Your task to perform on an android device: Search for a new foundation (skincare) product Image 0: 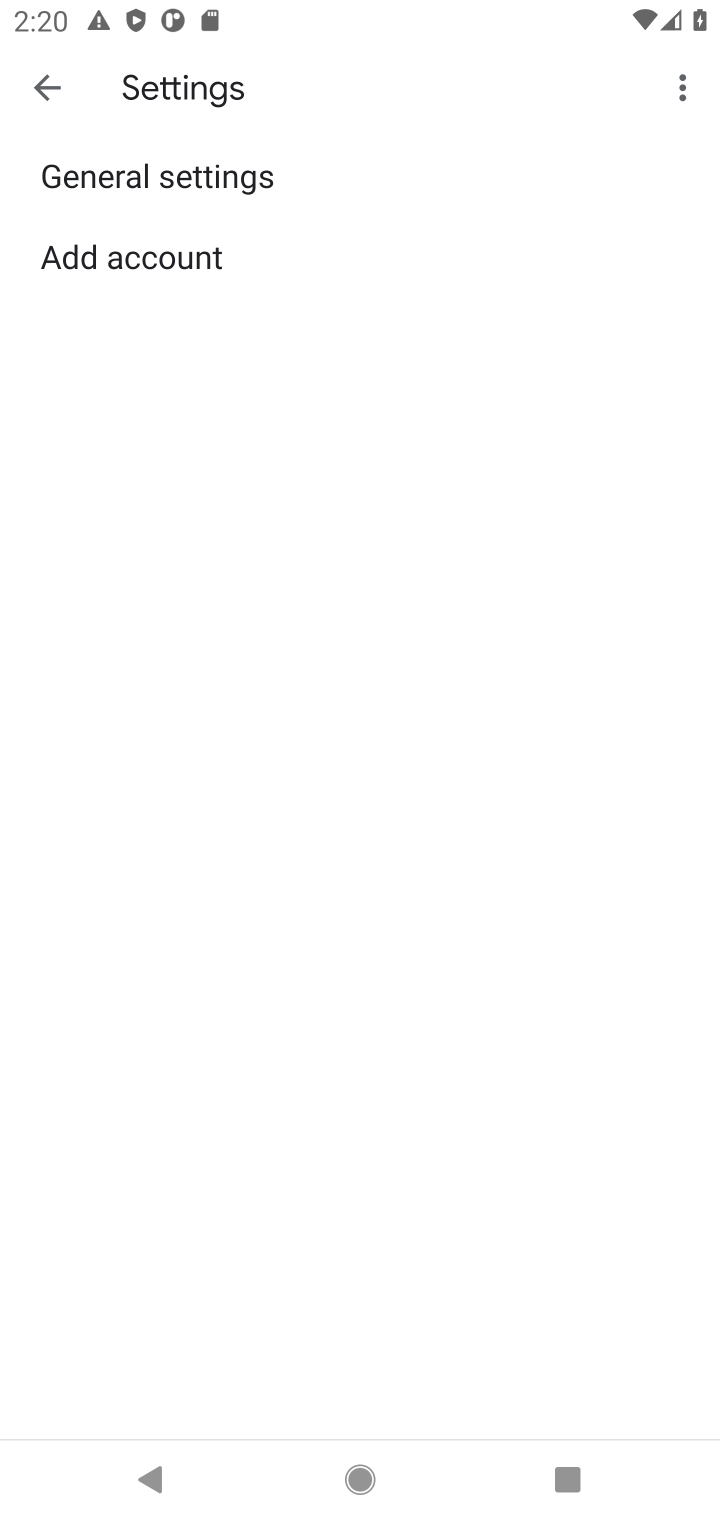
Step 0: press back button
Your task to perform on an android device: Search for a new foundation (skincare) product Image 1: 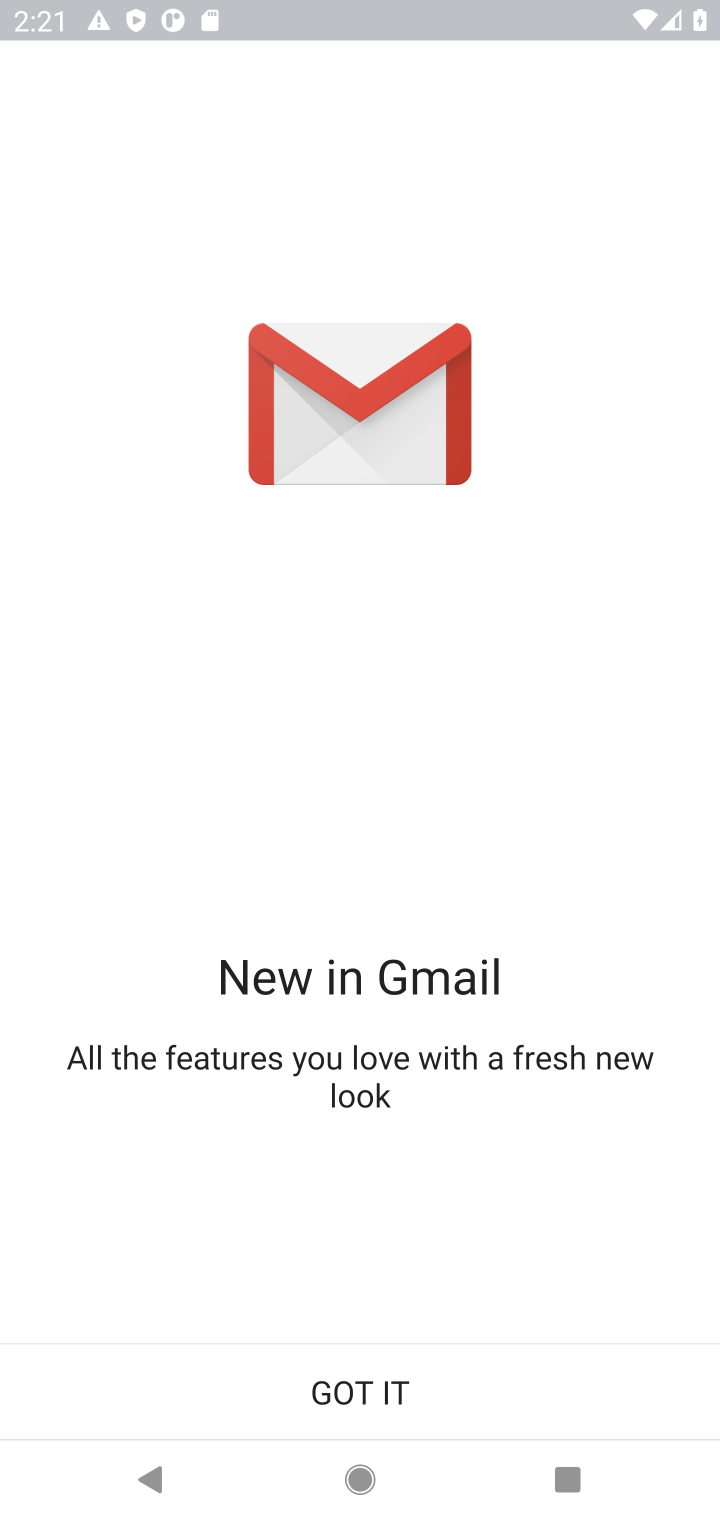
Step 1: click (398, 1394)
Your task to perform on an android device: Search for a new foundation (skincare) product Image 2: 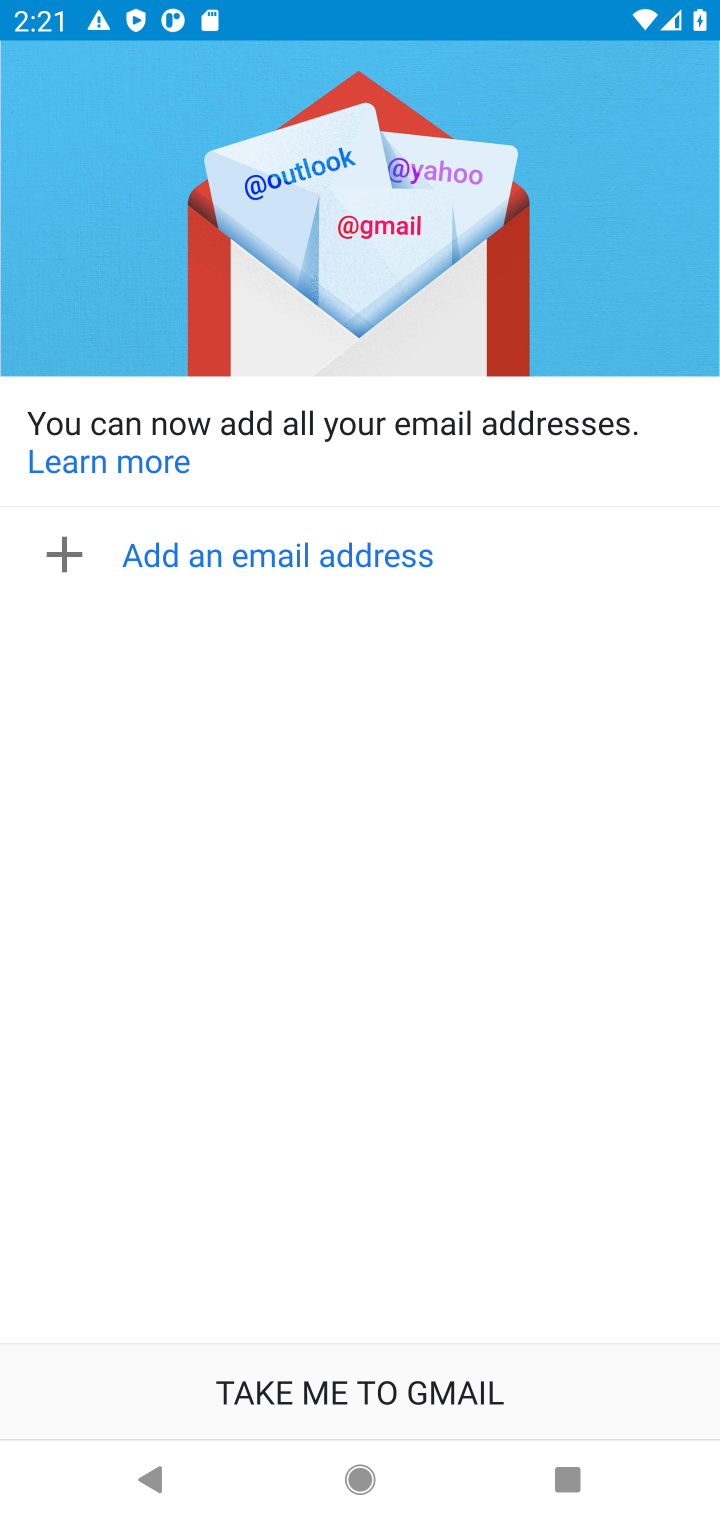
Step 2: click (398, 1394)
Your task to perform on an android device: Search for a new foundation (skincare) product Image 3: 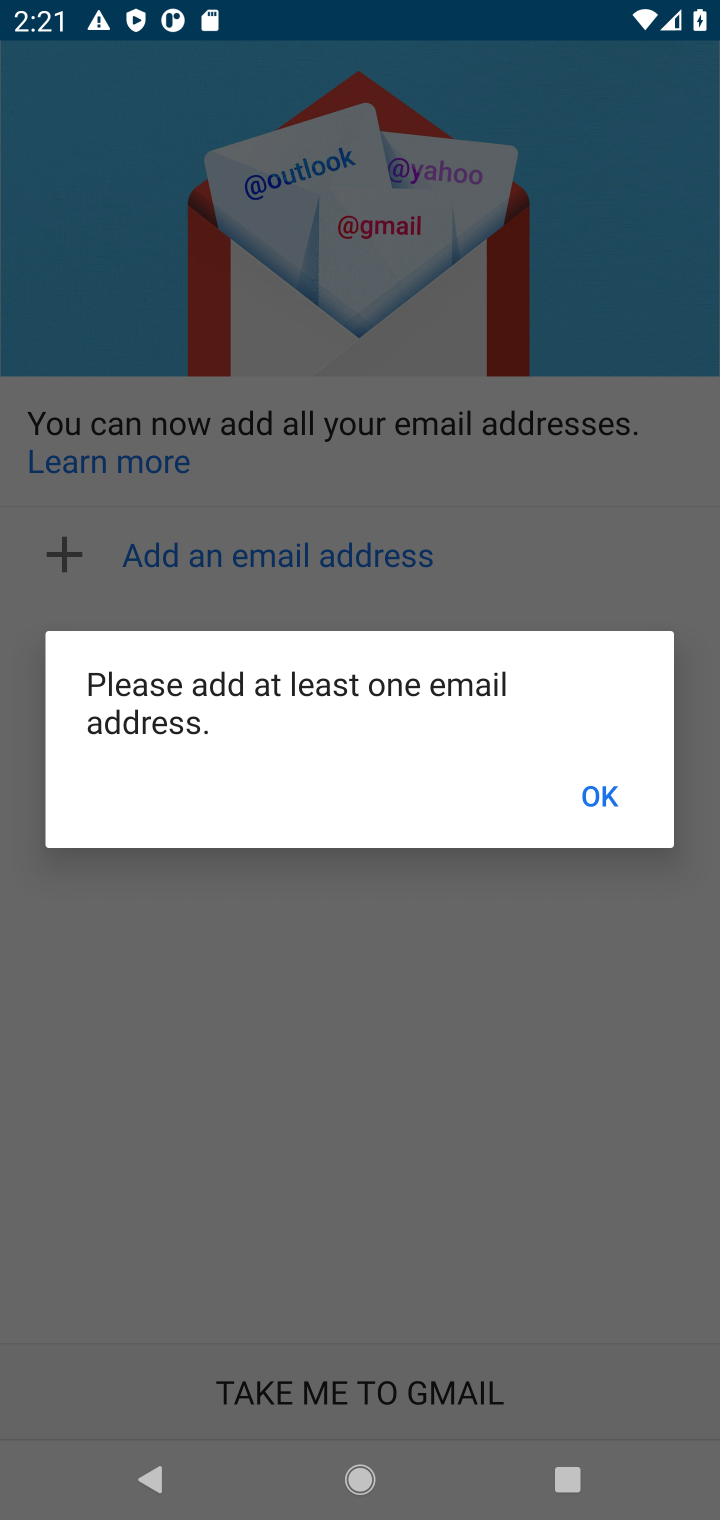
Step 3: click (602, 793)
Your task to perform on an android device: Search for a new foundation (skincare) product Image 4: 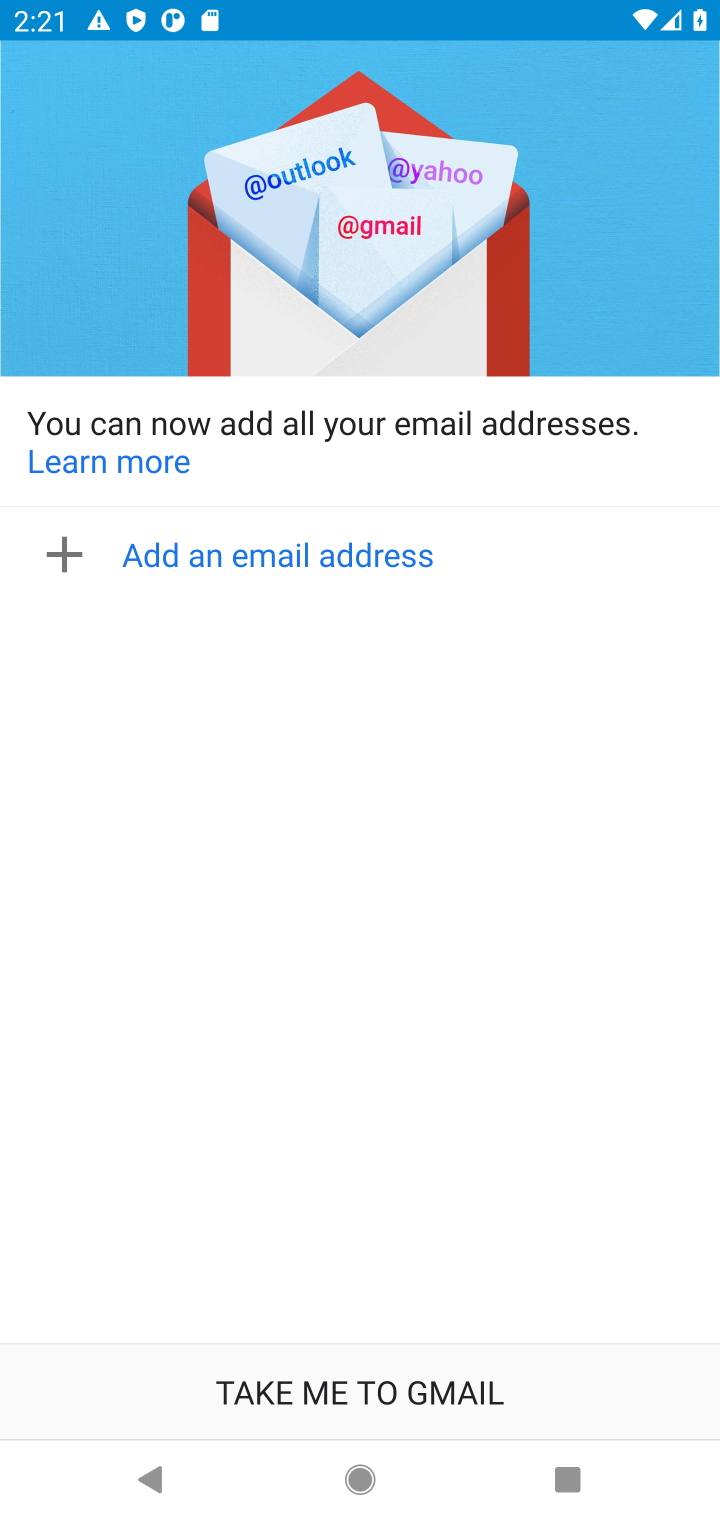
Step 4: click (401, 1389)
Your task to perform on an android device: Search for a new foundation (skincare) product Image 5: 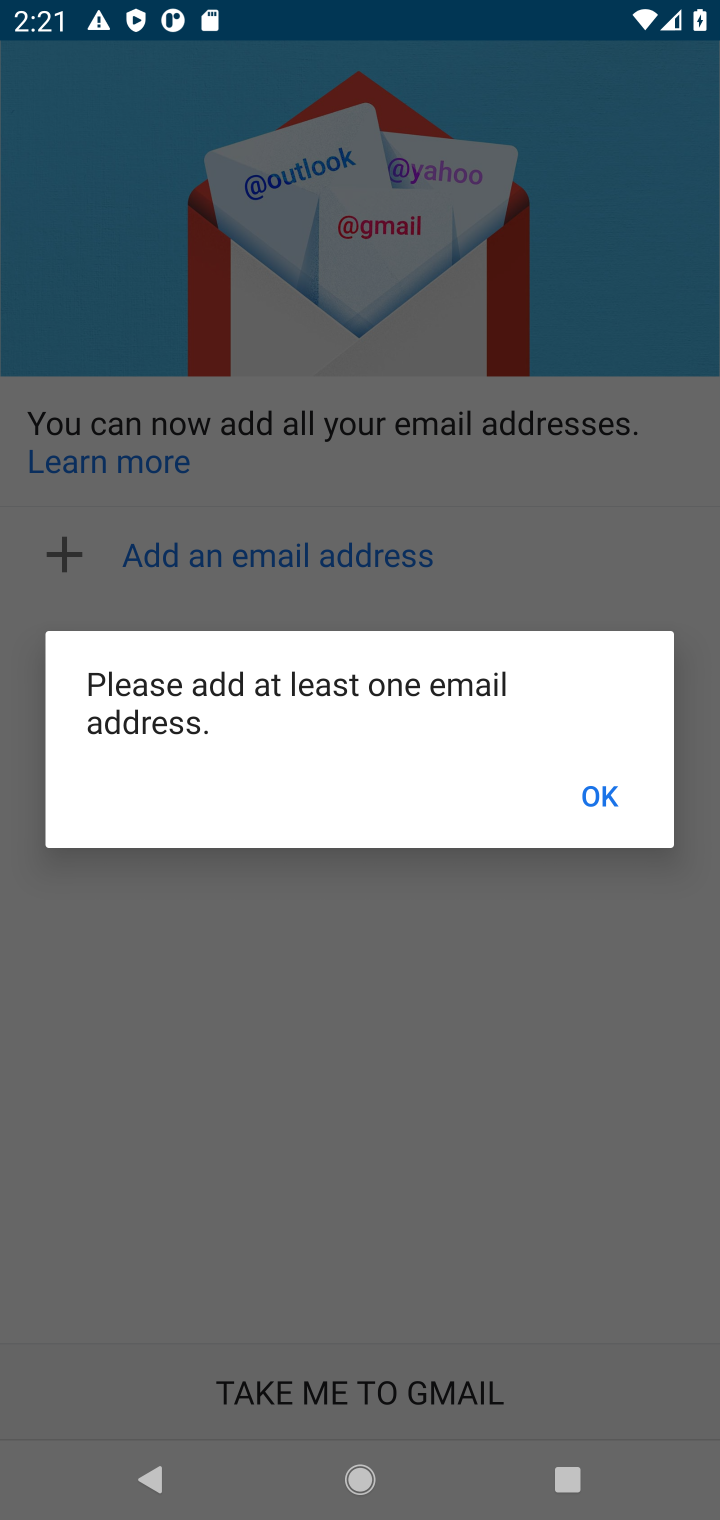
Step 5: click (602, 793)
Your task to perform on an android device: Search for a new foundation (skincare) product Image 6: 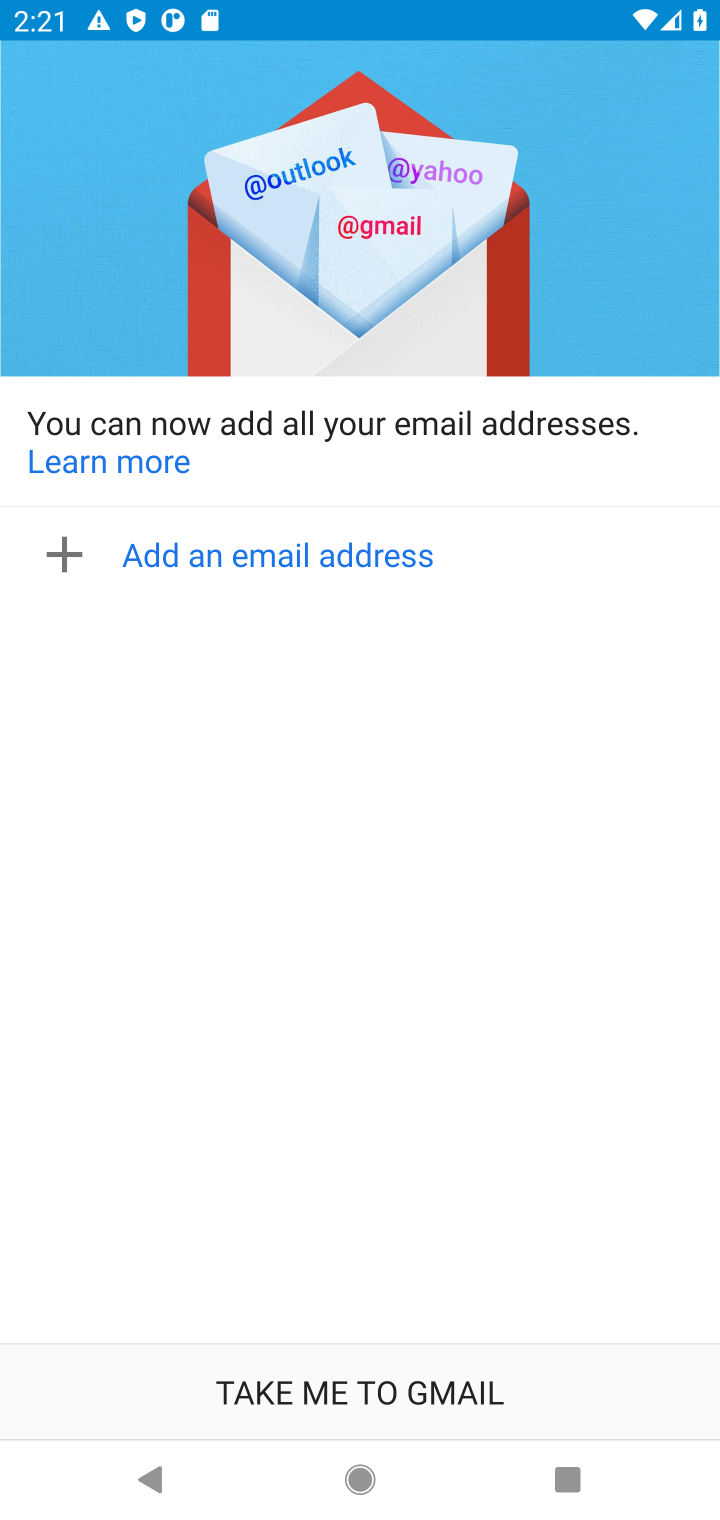
Step 6: click (415, 1404)
Your task to perform on an android device: Search for a new foundation (skincare) product Image 7: 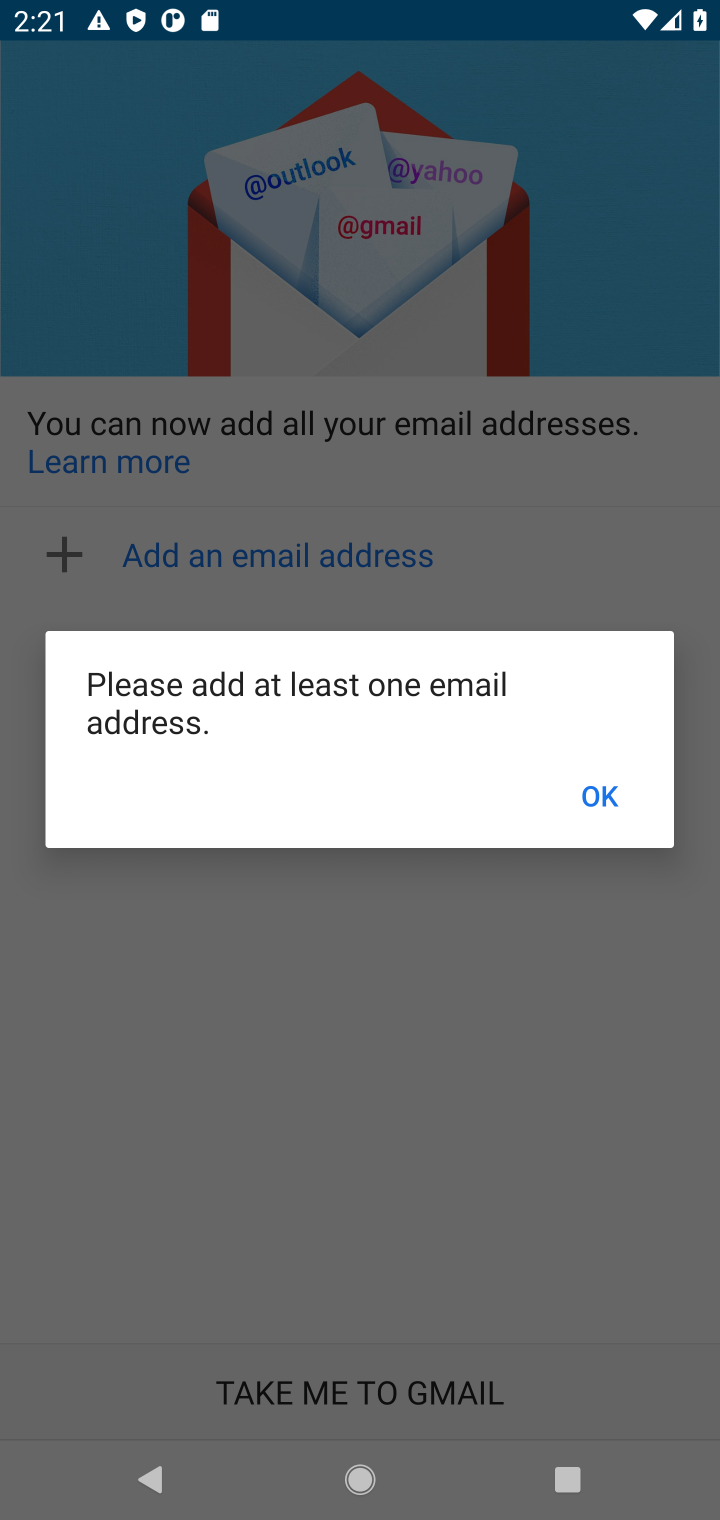
Step 7: click (580, 814)
Your task to perform on an android device: Search for a new foundation (skincare) product Image 8: 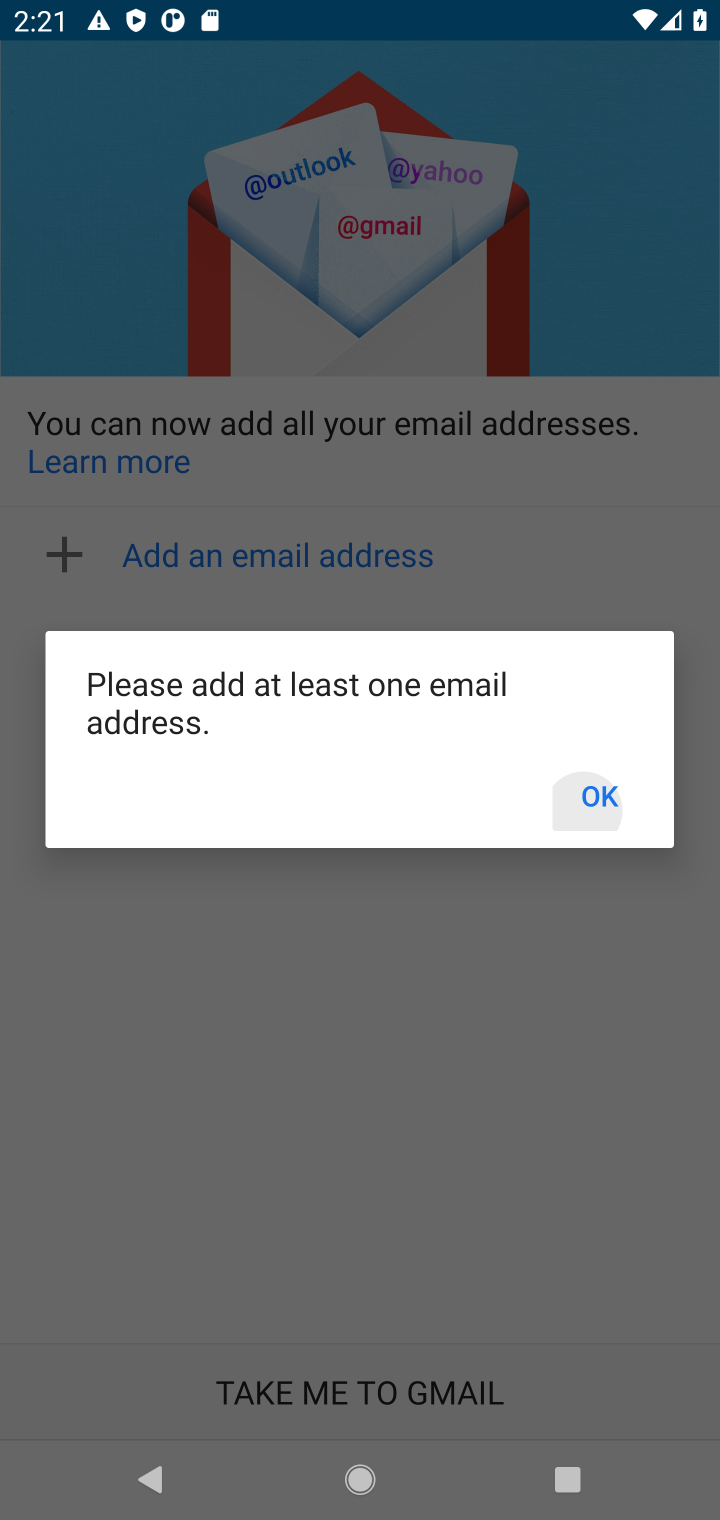
Step 8: click (599, 804)
Your task to perform on an android device: Search for a new foundation (skincare) product Image 9: 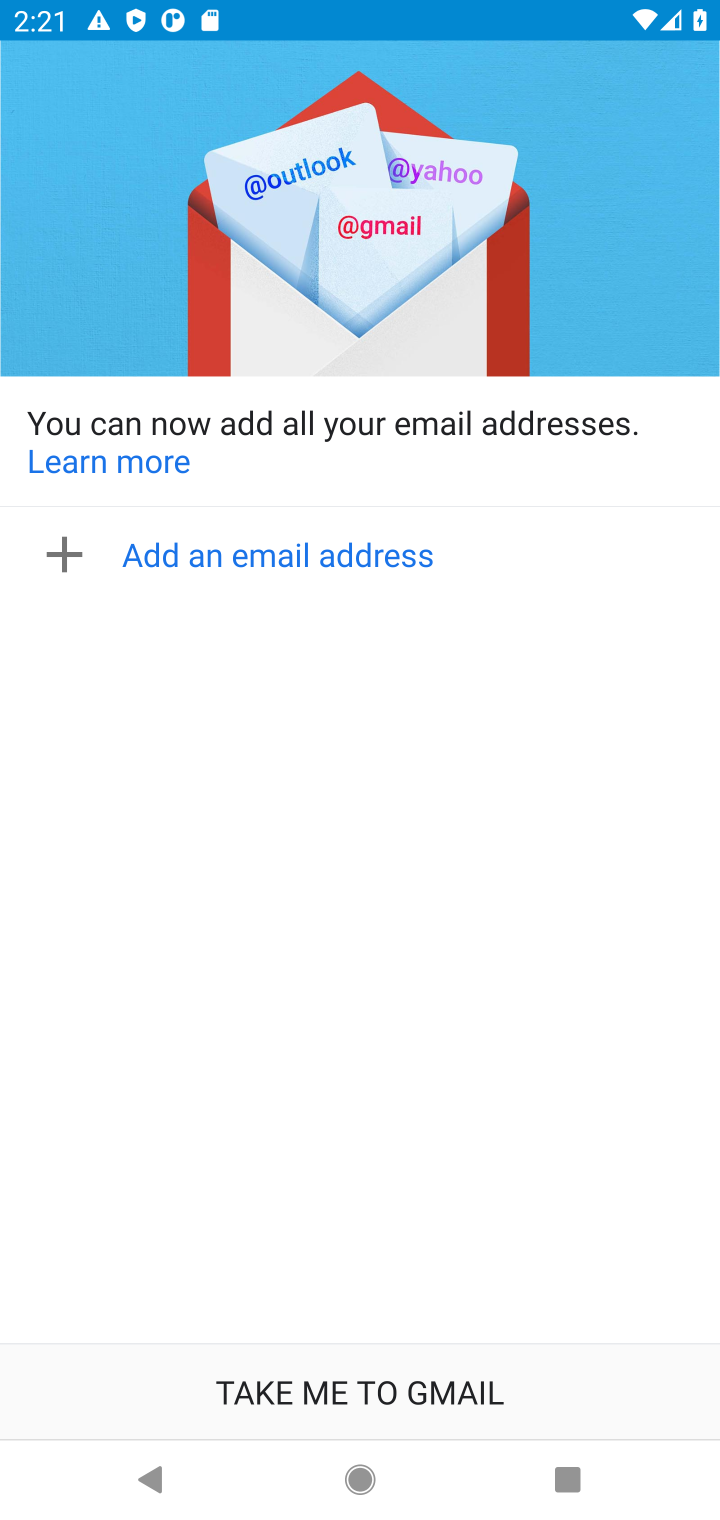
Step 9: press back button
Your task to perform on an android device: Search for a new foundation (skincare) product Image 10: 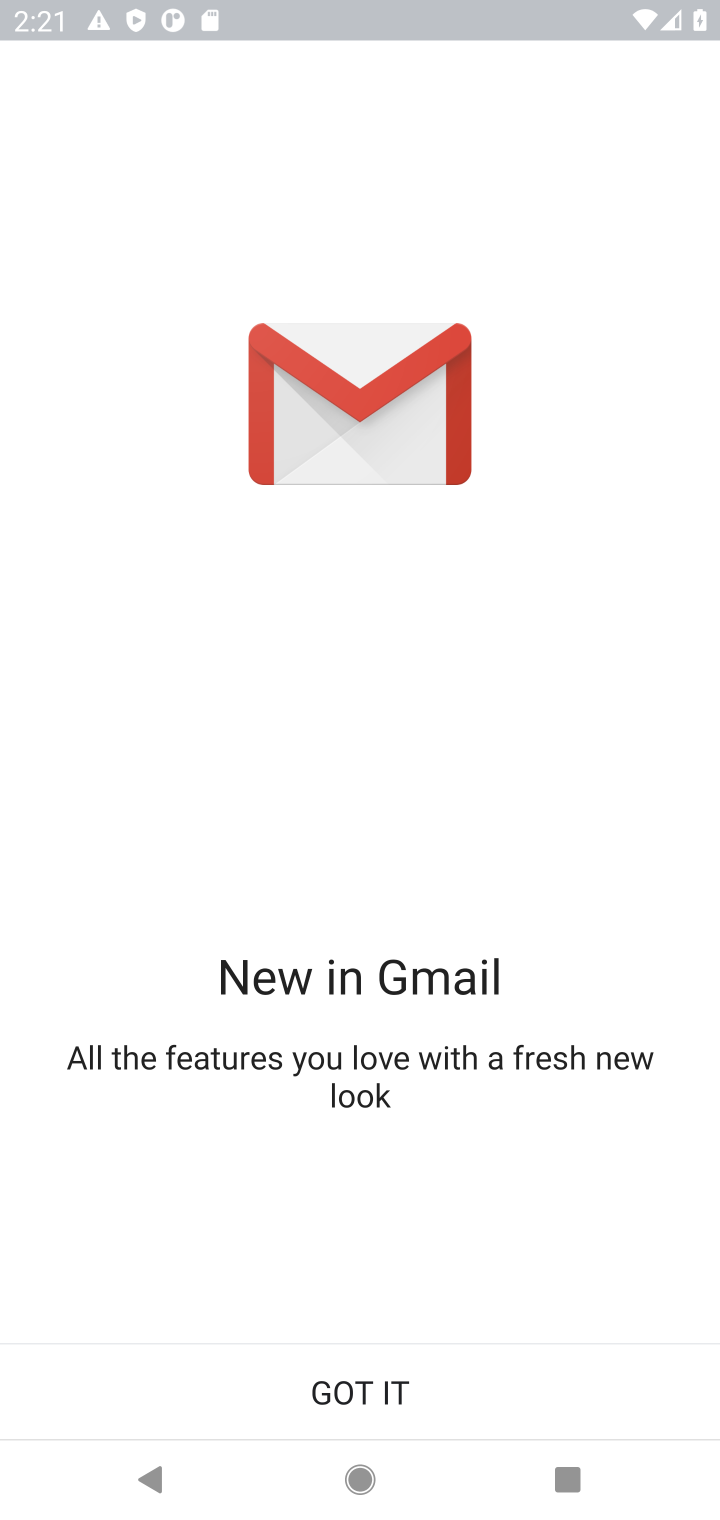
Step 10: click (352, 1422)
Your task to perform on an android device: Search for a new foundation (skincare) product Image 11: 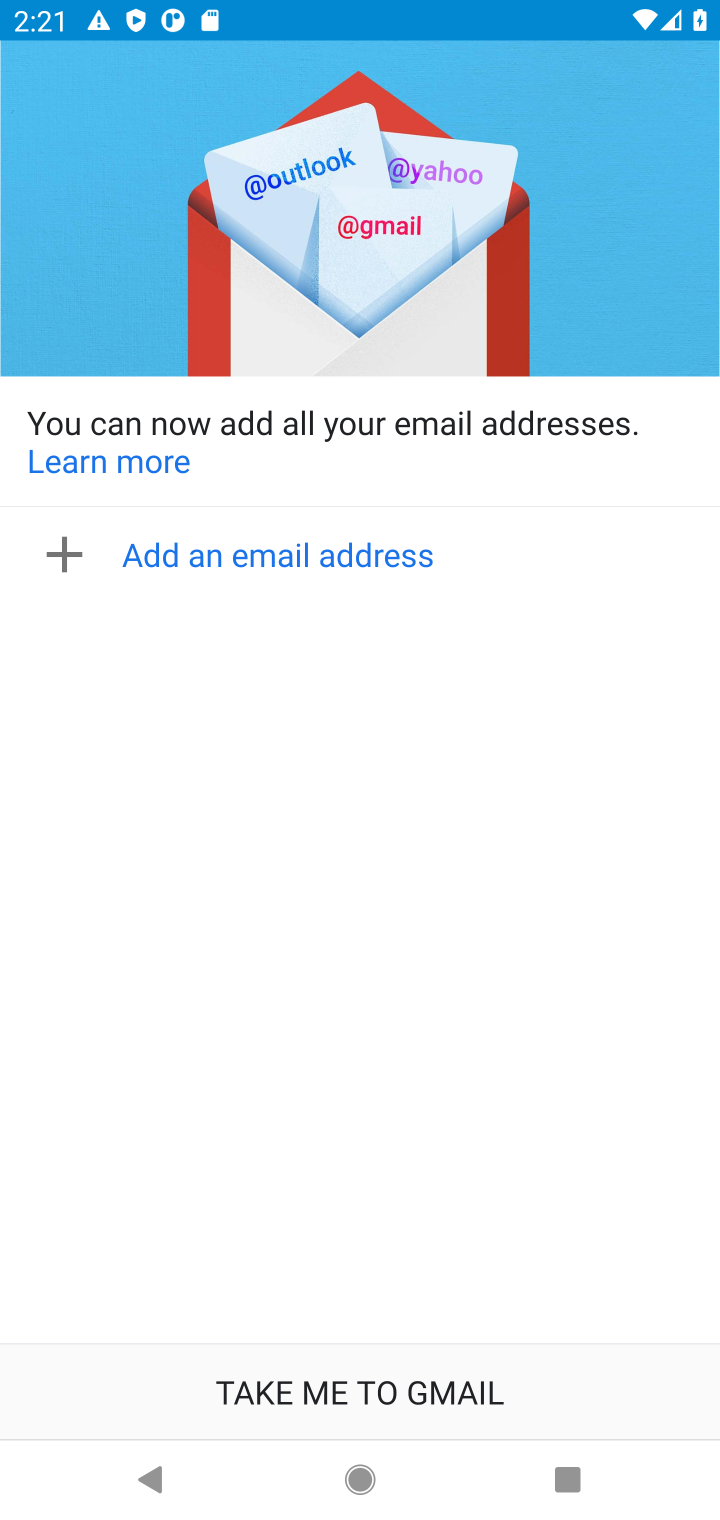
Step 11: press back button
Your task to perform on an android device: Search for a new foundation (skincare) product Image 12: 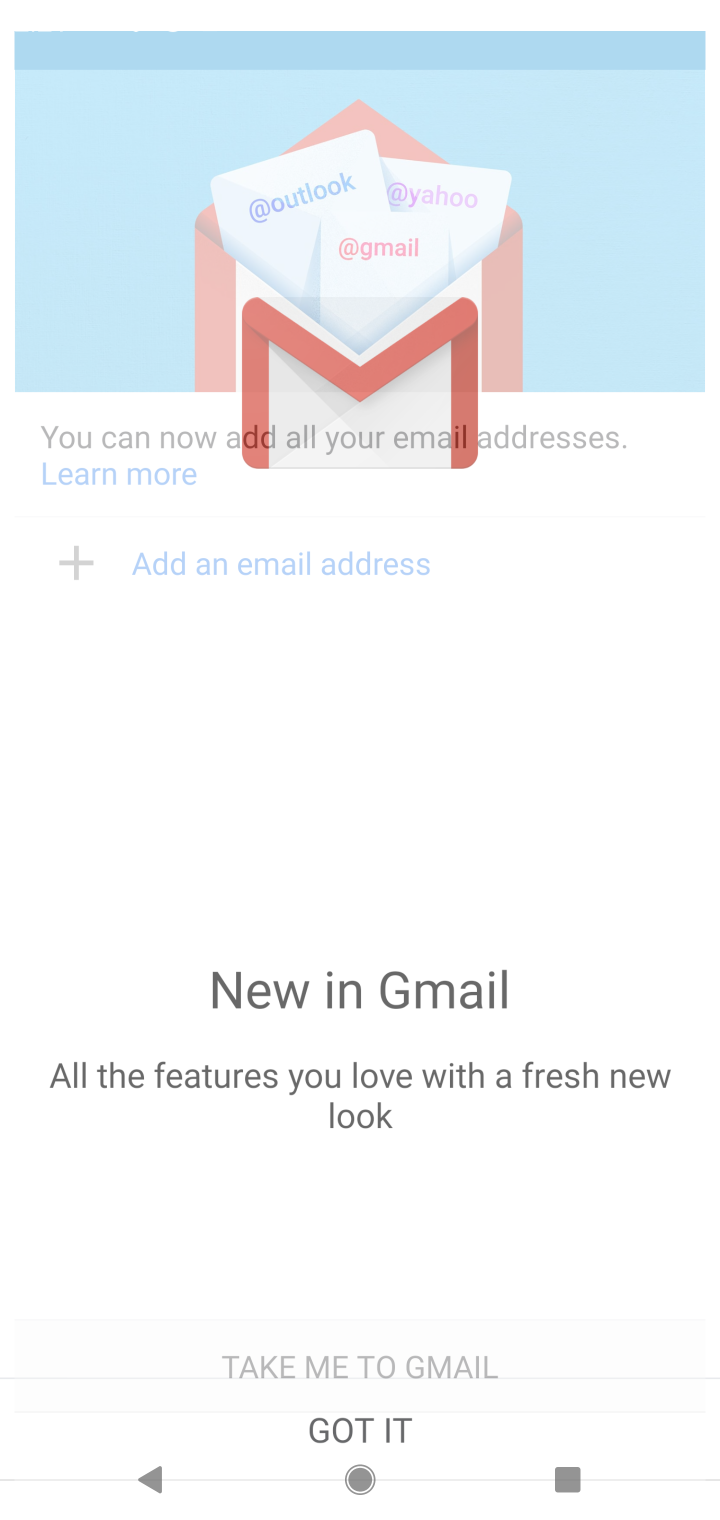
Step 12: press back button
Your task to perform on an android device: Search for a new foundation (skincare) product Image 13: 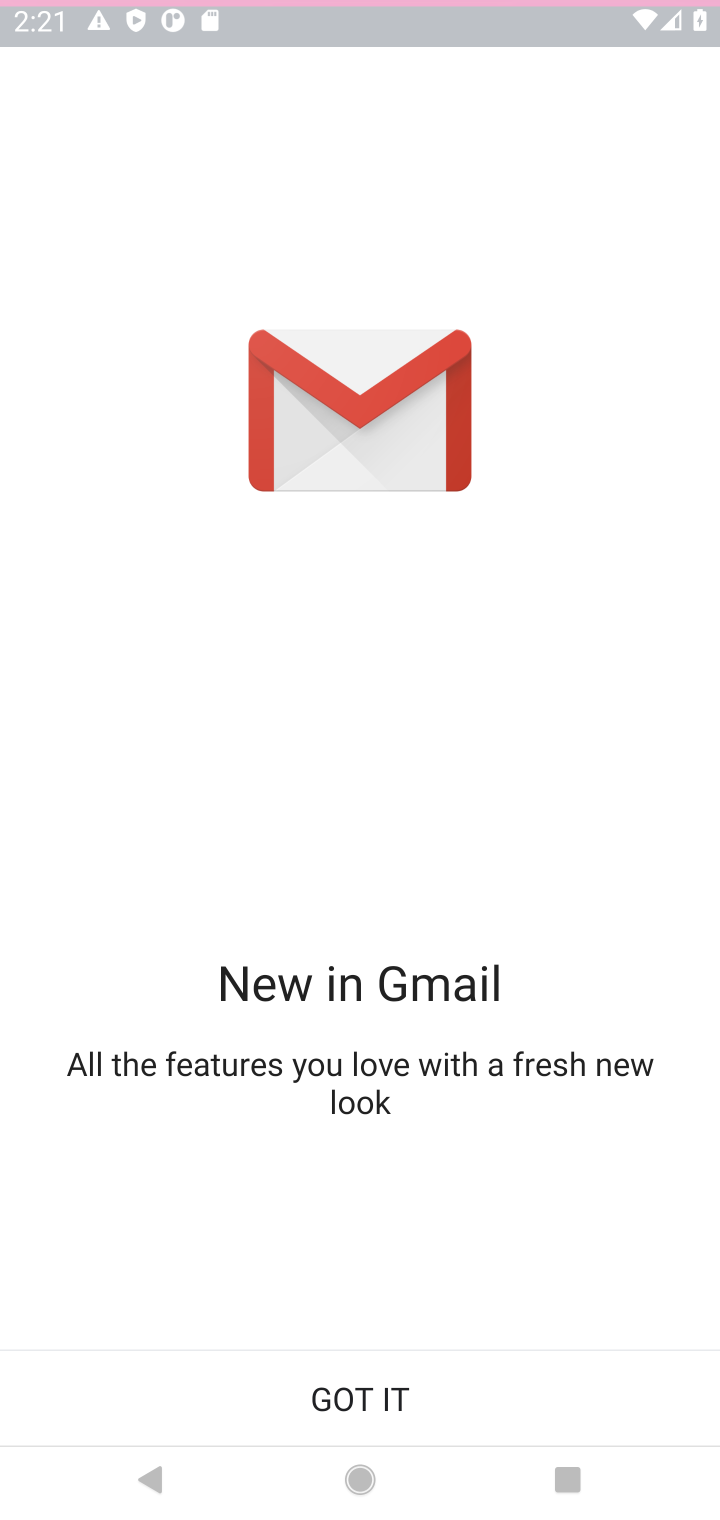
Step 13: press back button
Your task to perform on an android device: Search for a new foundation (skincare) product Image 14: 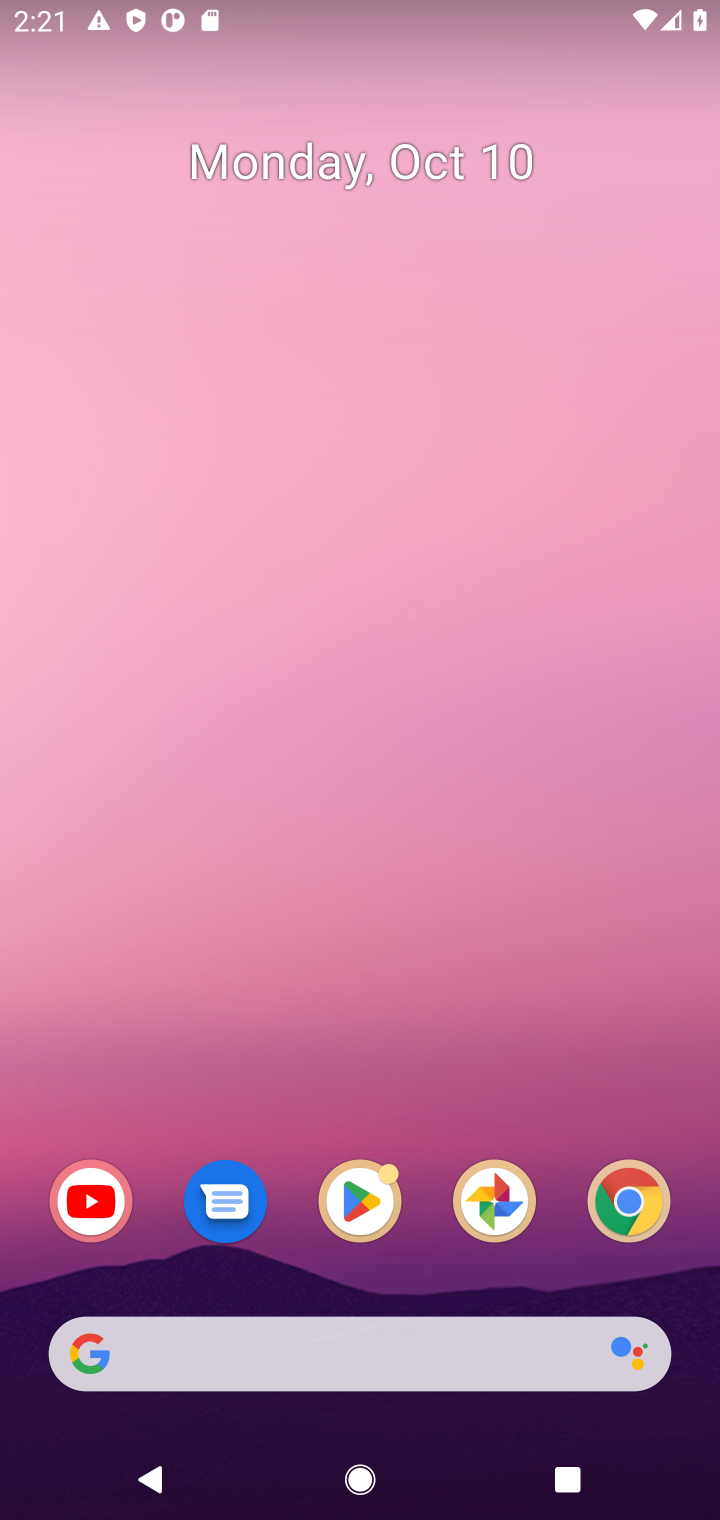
Step 14: click (233, 1333)
Your task to perform on an android device: Search for a new foundation (skincare) product Image 15: 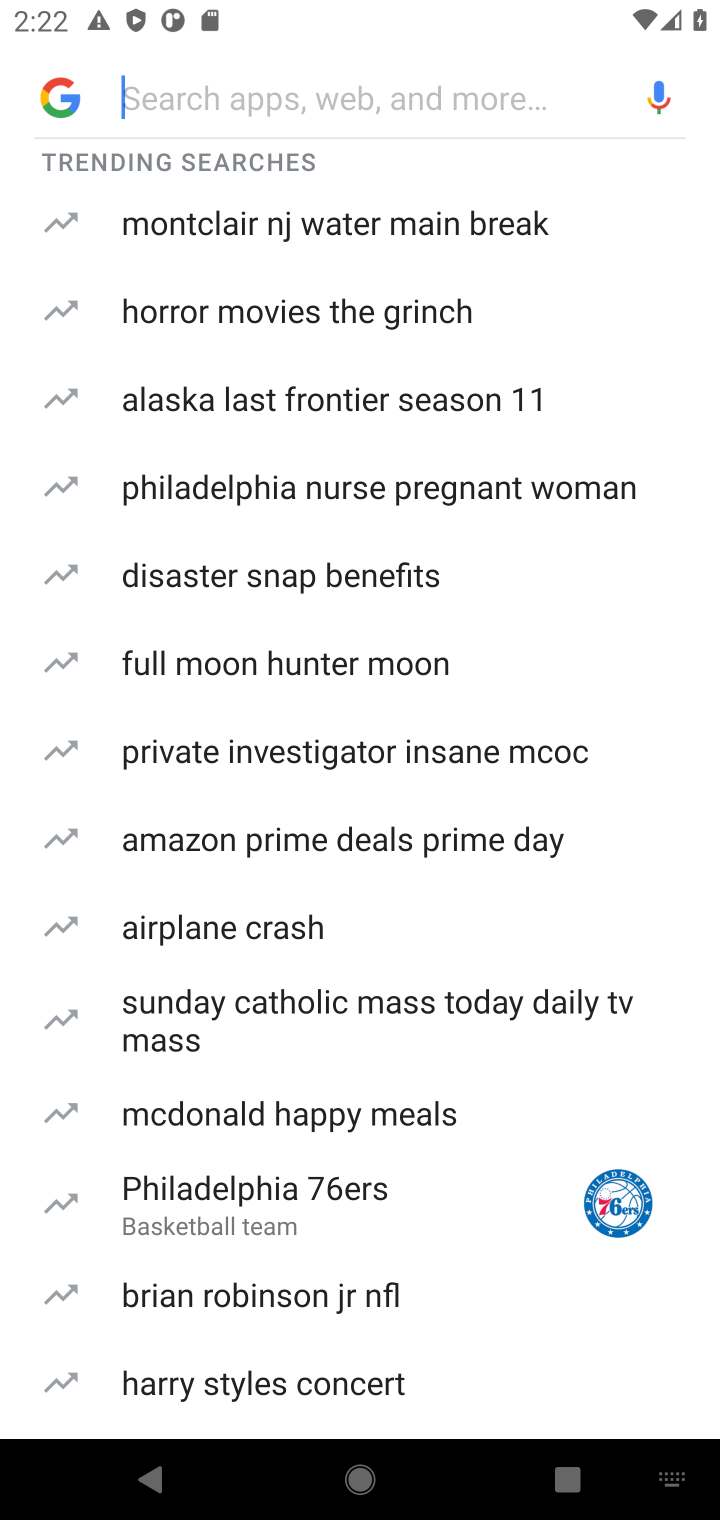
Step 15: click (153, 95)
Your task to perform on an android device: Search for a new foundation (skincare) product Image 16: 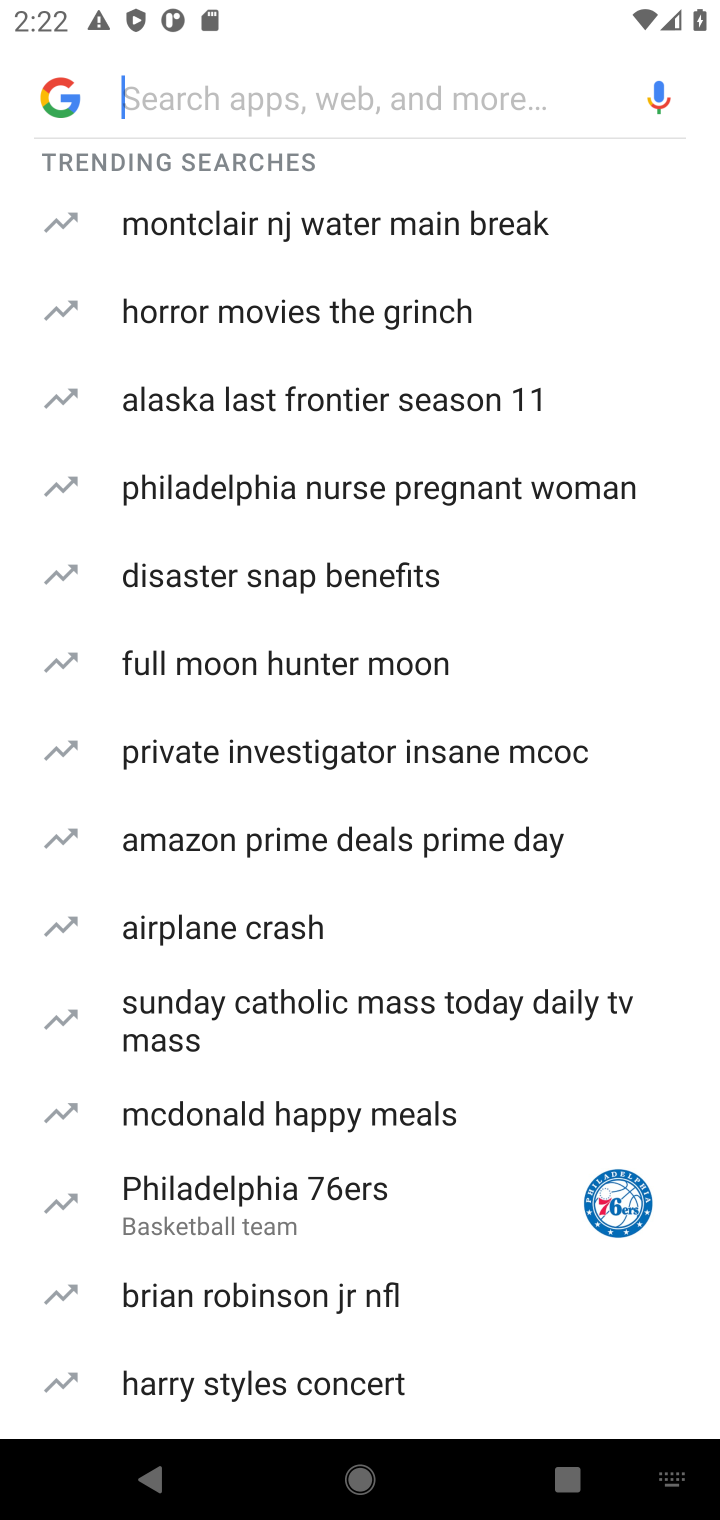
Step 16: type "new foundation (skincare) product"
Your task to perform on an android device: Search for a new foundation (skincare) product Image 17: 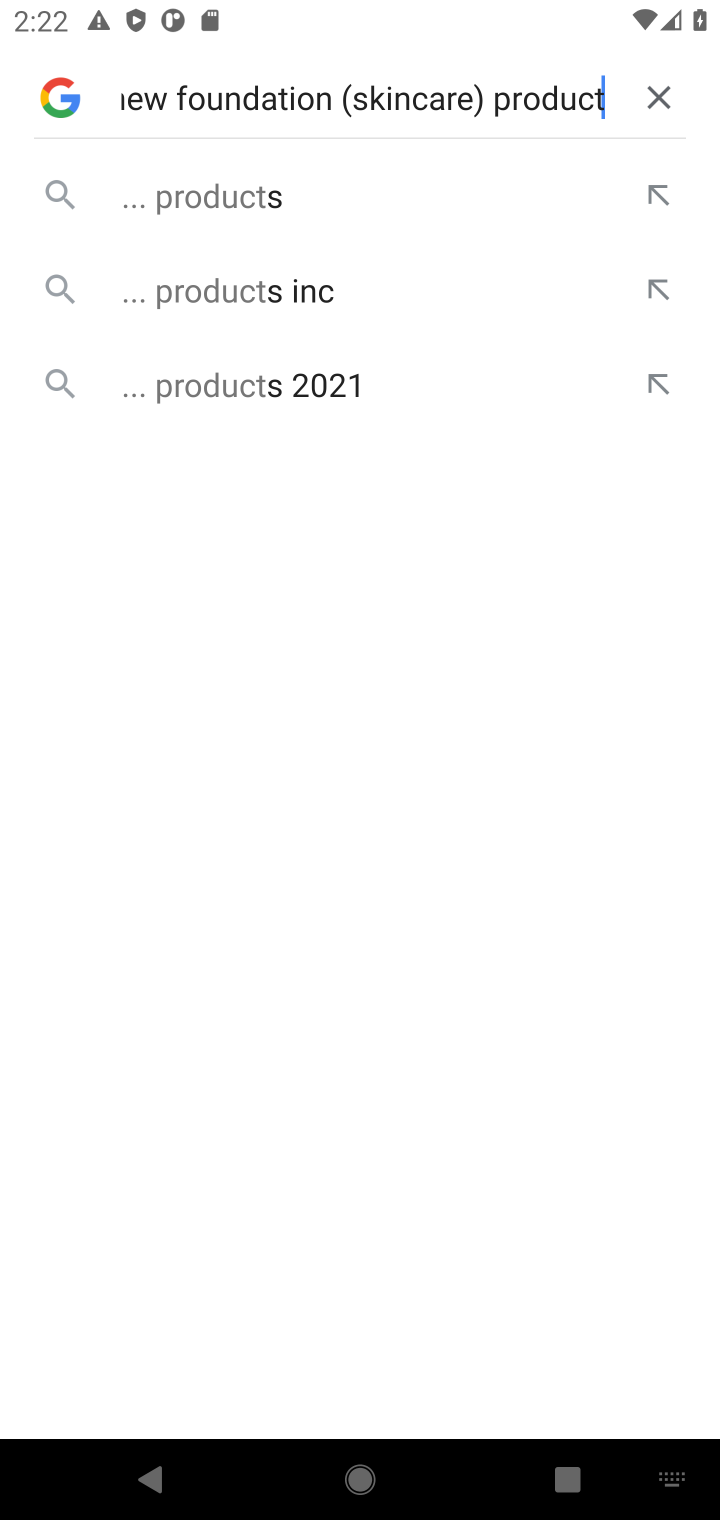
Step 17: type ""
Your task to perform on an android device: Search for a new foundation (skincare) product Image 18: 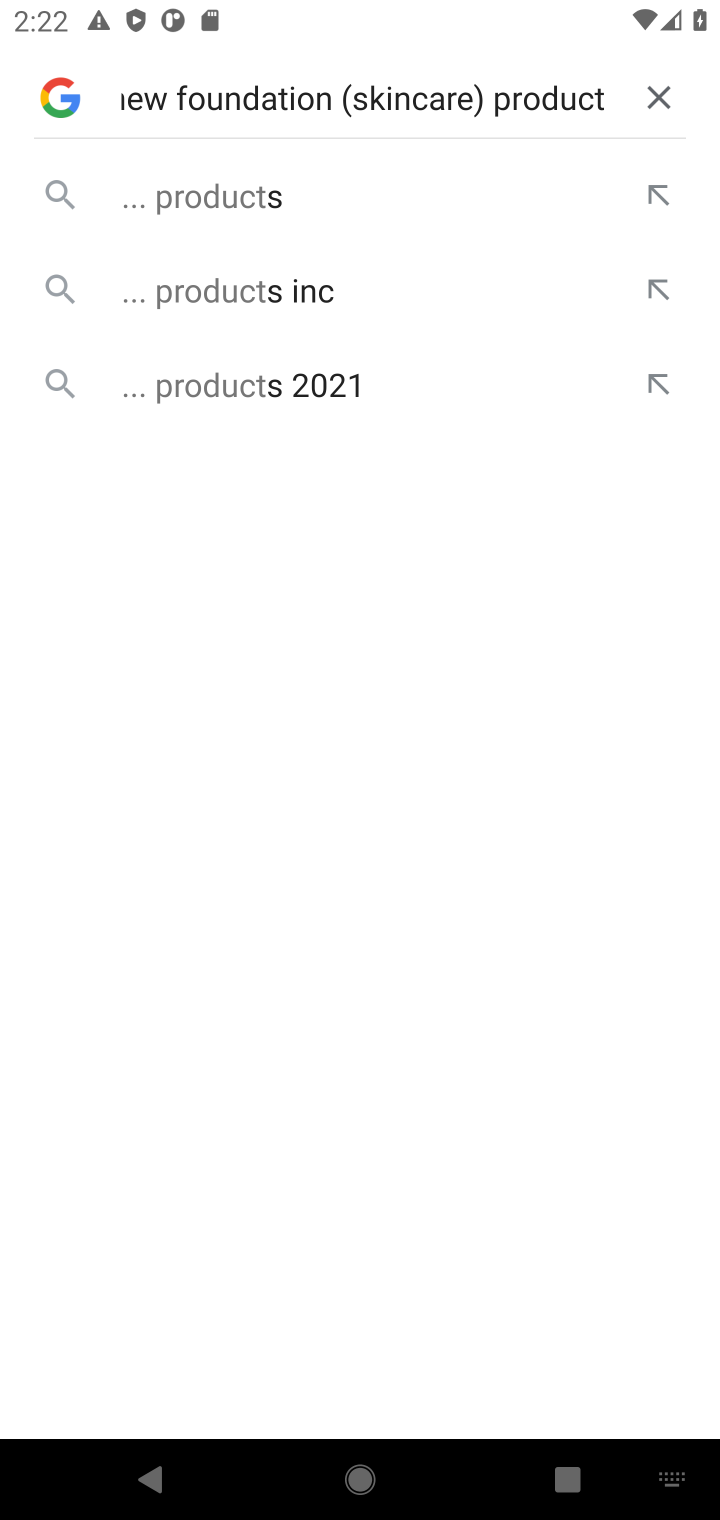
Step 18: type ""
Your task to perform on an android device: Search for a new foundation (skincare) product Image 19: 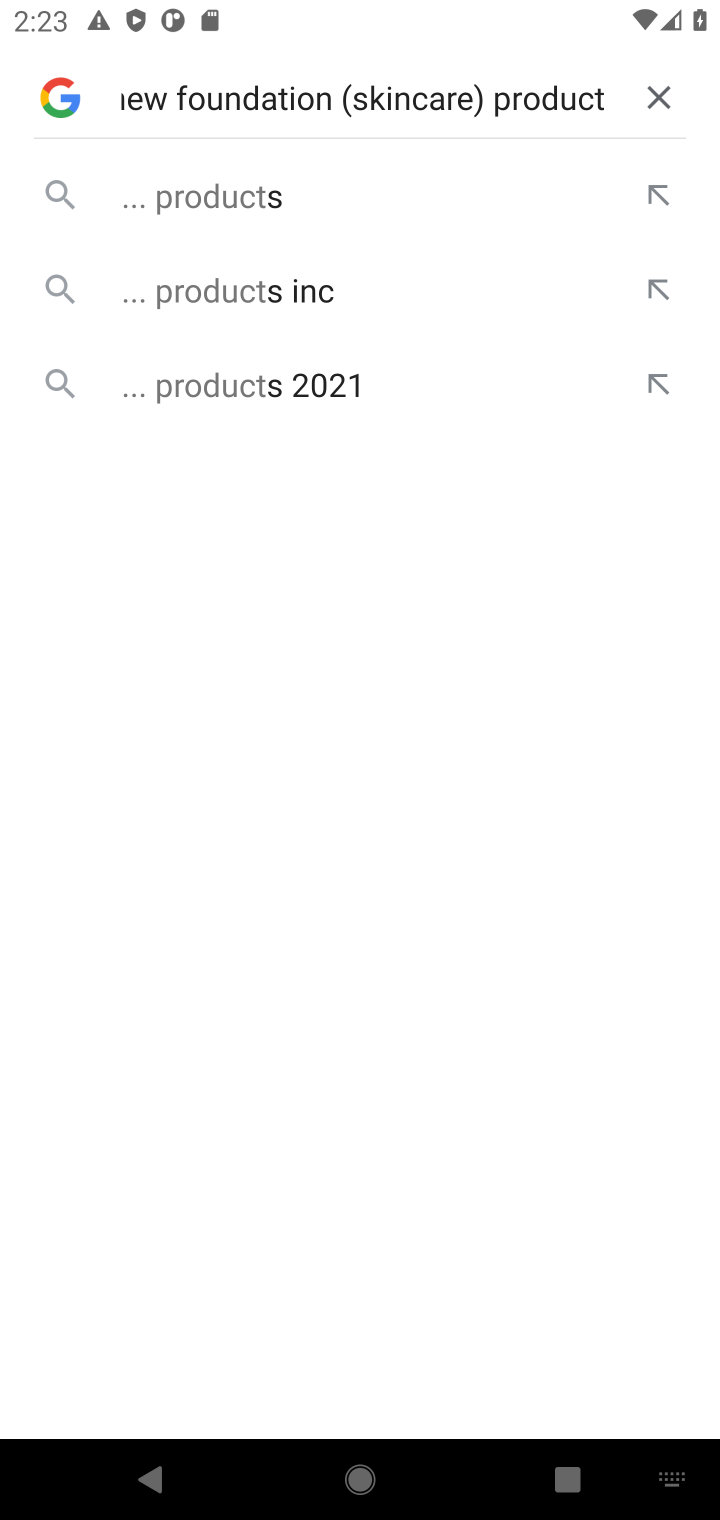
Step 19: press enter
Your task to perform on an android device: Search for a new foundation (skincare) product Image 20: 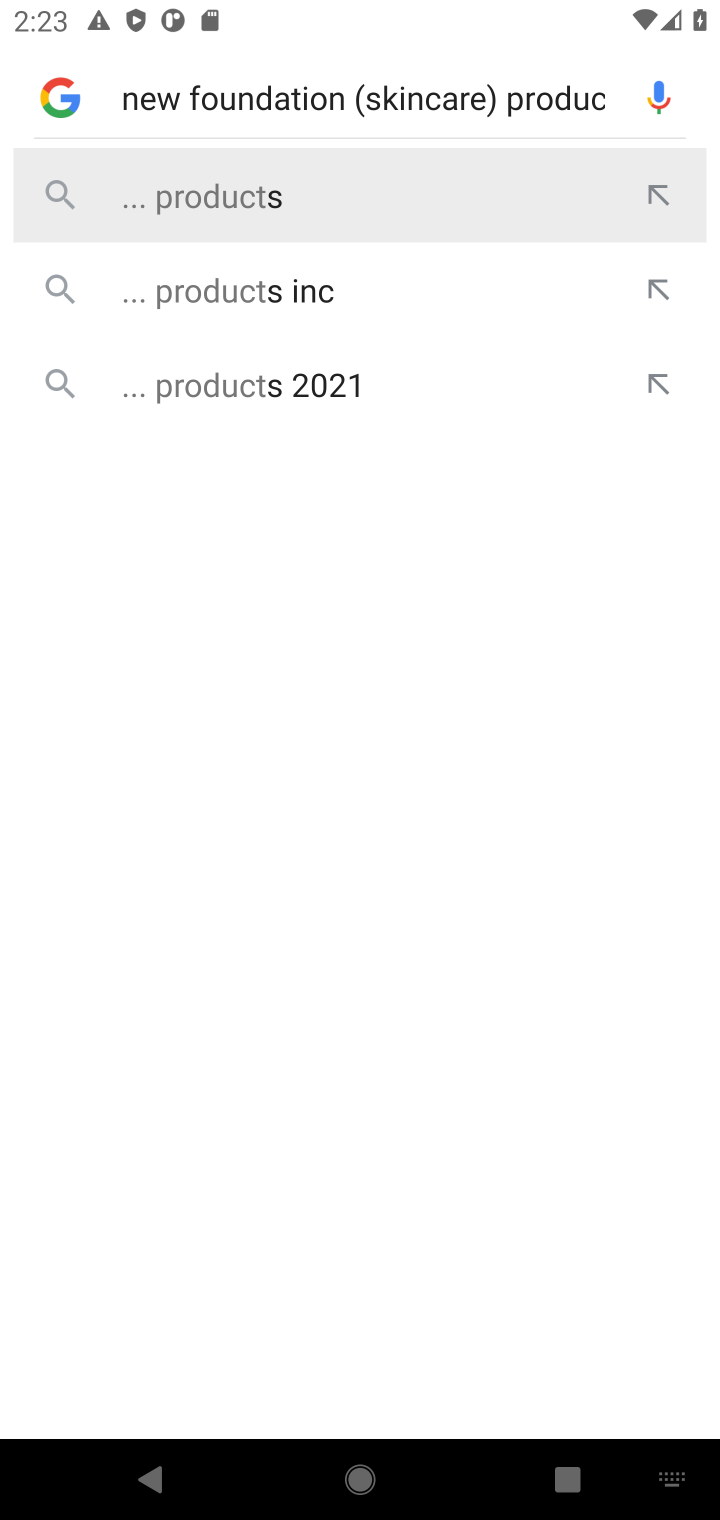
Step 20: press enter
Your task to perform on an android device: Search for a new foundation (skincare) product Image 21: 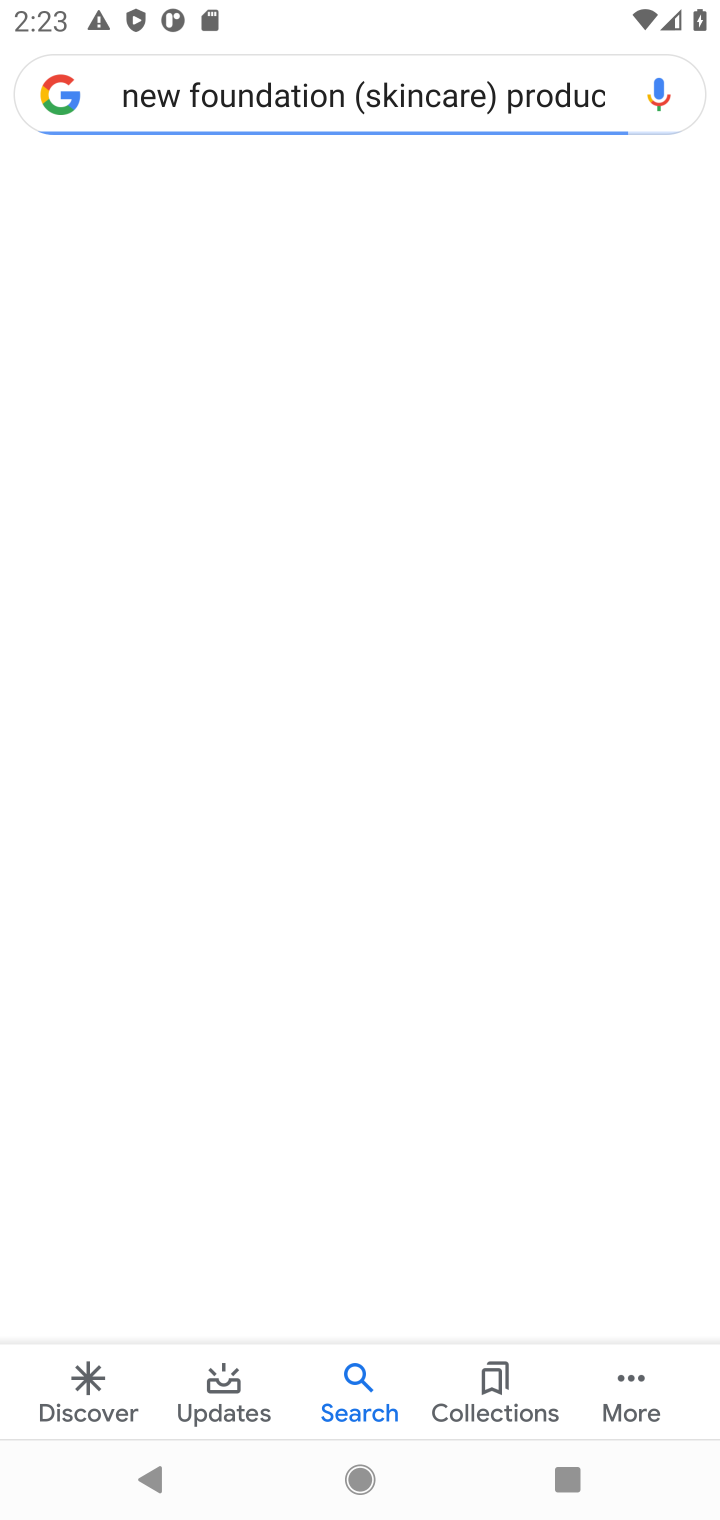
Step 21: press enter
Your task to perform on an android device: Search for a new foundation (skincare) product Image 22: 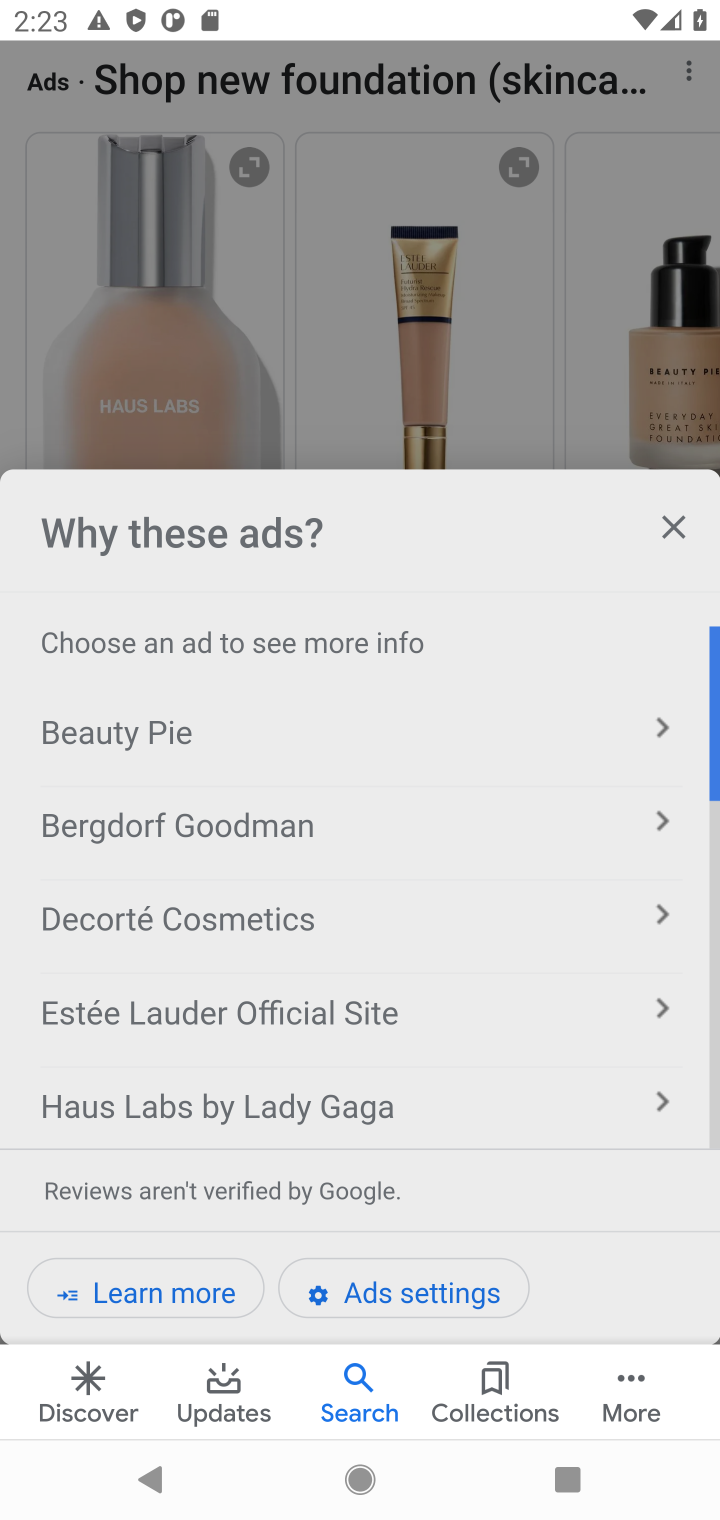
Step 22: click (678, 522)
Your task to perform on an android device: Search for a new foundation (skincare) product Image 23: 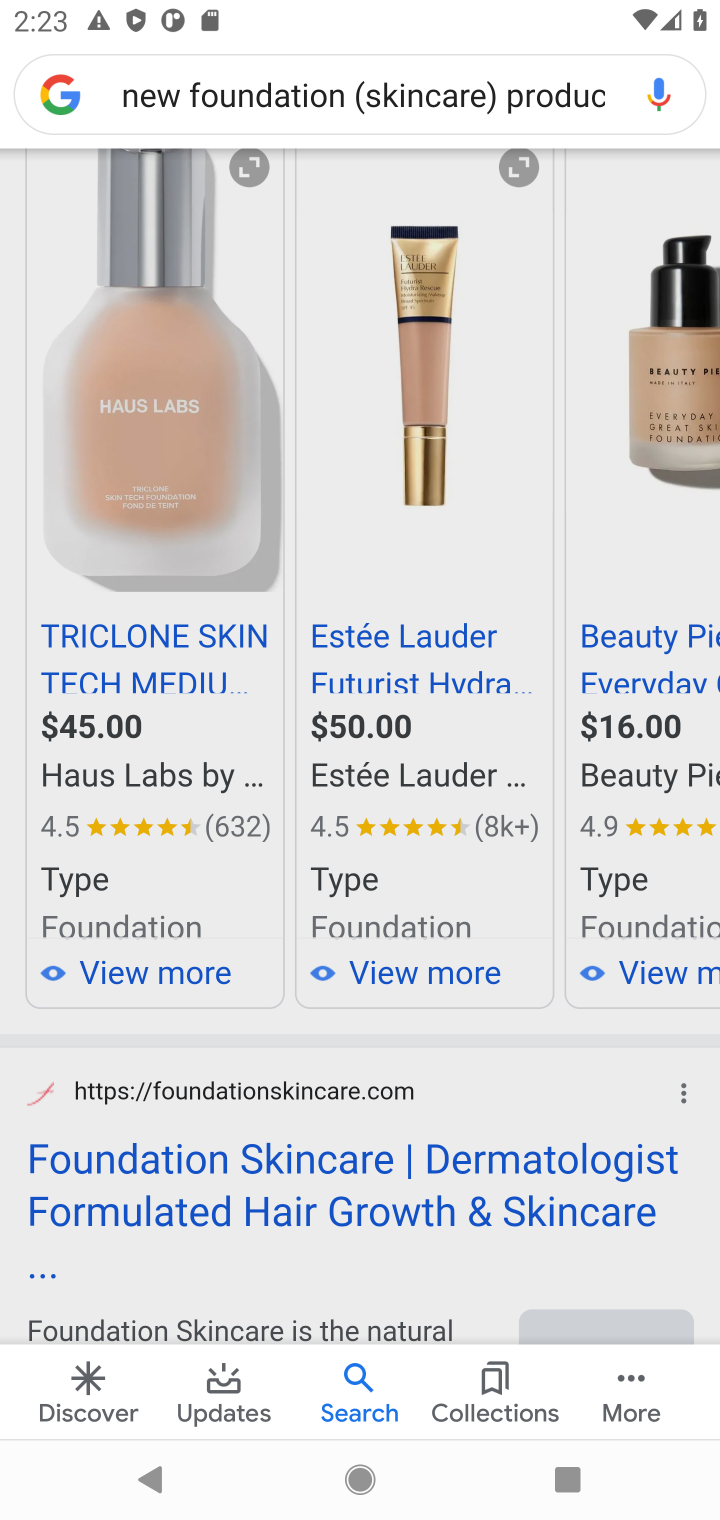
Step 23: task complete